Your task to perform on an android device: Open settings on Google Maps Image 0: 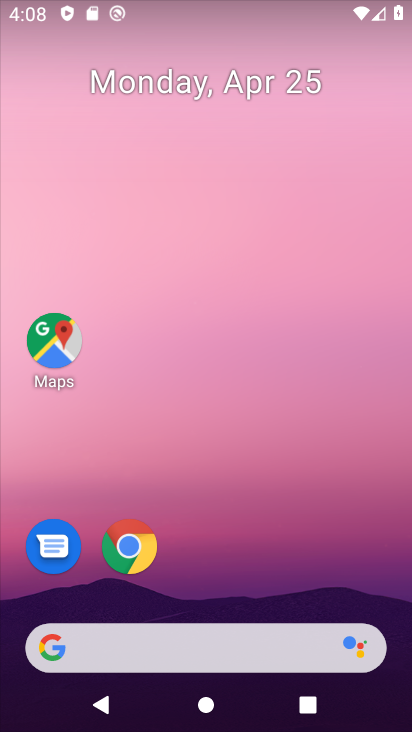
Step 0: drag from (218, 610) to (200, 92)
Your task to perform on an android device: Open settings on Google Maps Image 1: 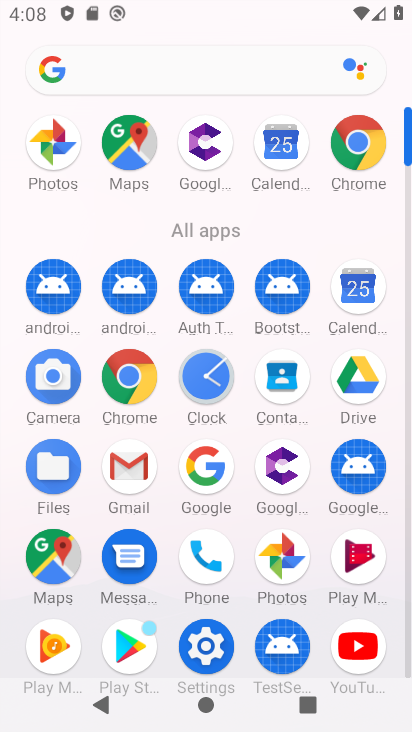
Step 1: click (61, 549)
Your task to perform on an android device: Open settings on Google Maps Image 2: 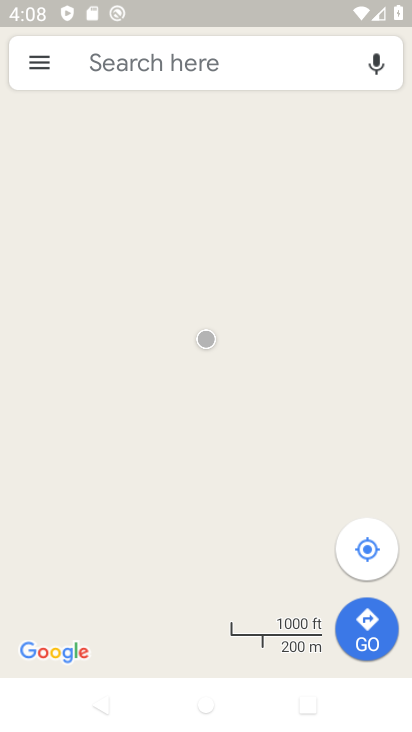
Step 2: click (30, 66)
Your task to perform on an android device: Open settings on Google Maps Image 3: 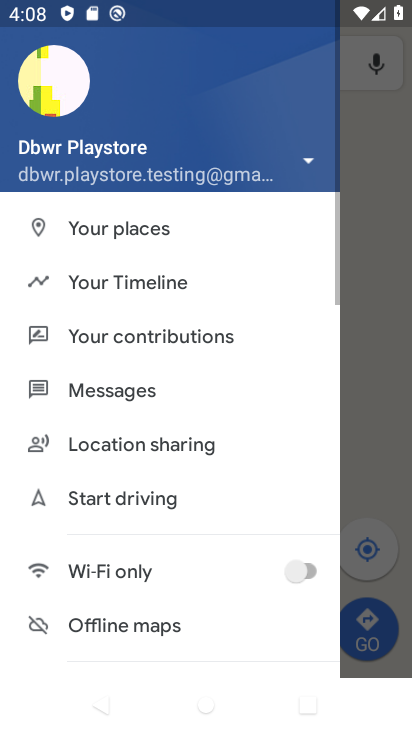
Step 3: drag from (131, 576) to (128, 231)
Your task to perform on an android device: Open settings on Google Maps Image 4: 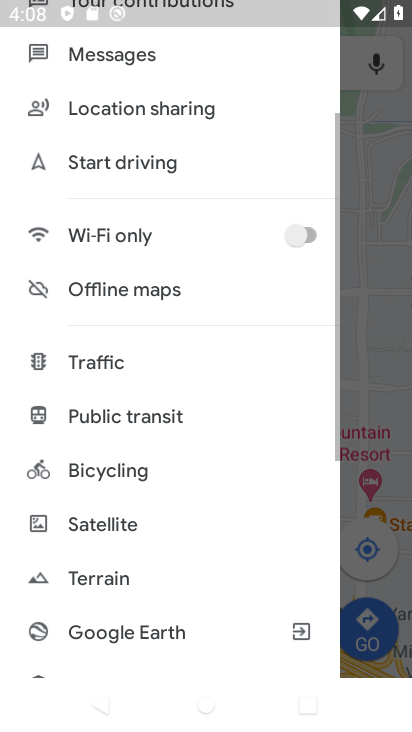
Step 4: drag from (128, 632) to (112, 265)
Your task to perform on an android device: Open settings on Google Maps Image 5: 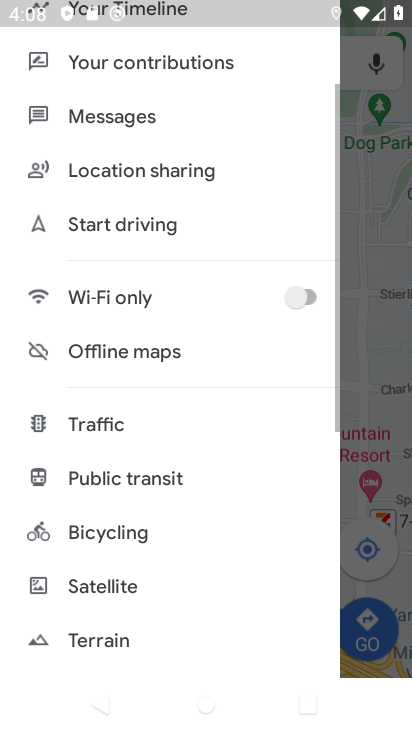
Step 5: drag from (108, 524) to (98, 267)
Your task to perform on an android device: Open settings on Google Maps Image 6: 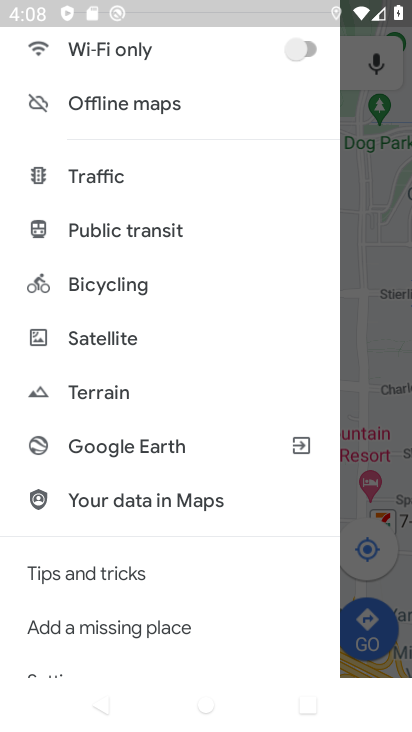
Step 6: drag from (109, 639) to (110, 254)
Your task to perform on an android device: Open settings on Google Maps Image 7: 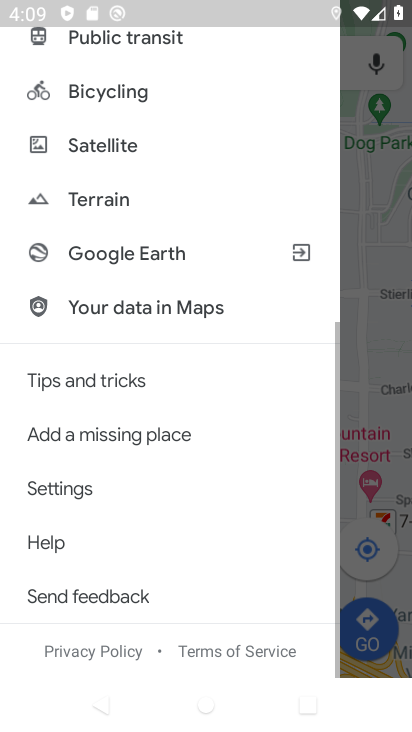
Step 7: click (59, 487)
Your task to perform on an android device: Open settings on Google Maps Image 8: 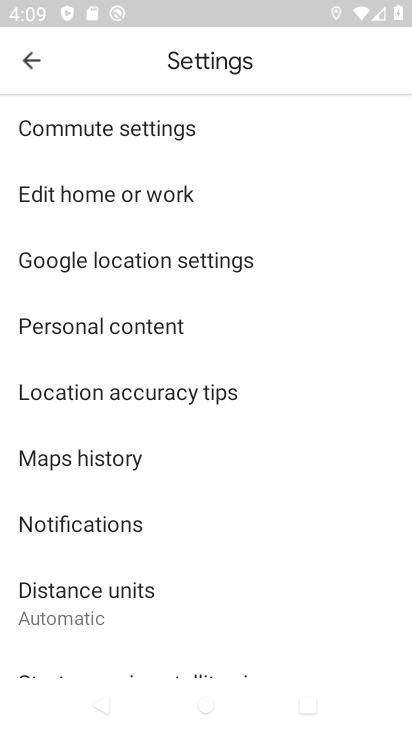
Step 8: task complete